Your task to perform on an android device: turn off translation in the chrome app Image 0: 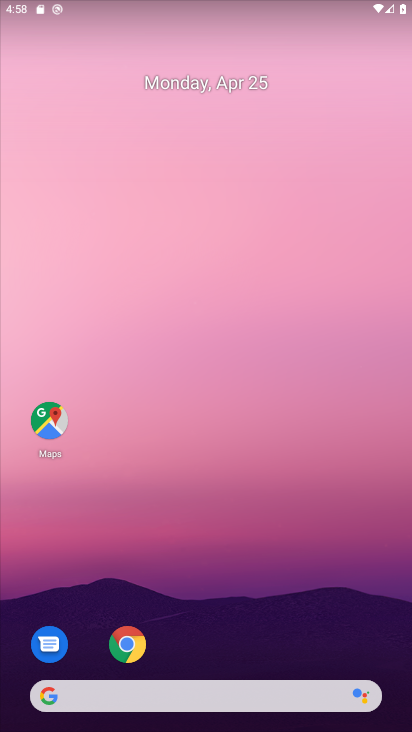
Step 0: click (137, 643)
Your task to perform on an android device: turn off translation in the chrome app Image 1: 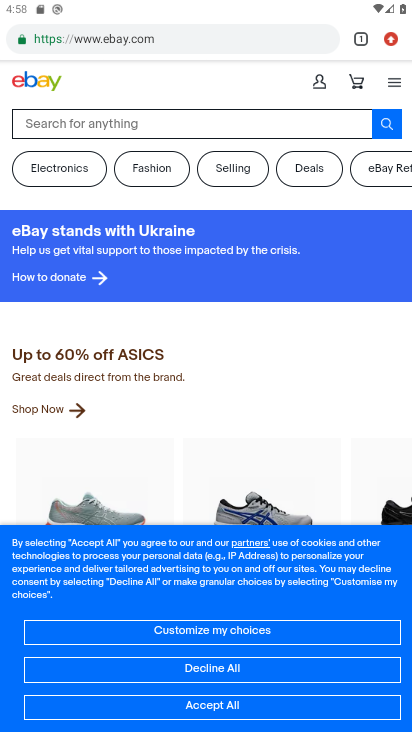
Step 1: click (390, 34)
Your task to perform on an android device: turn off translation in the chrome app Image 2: 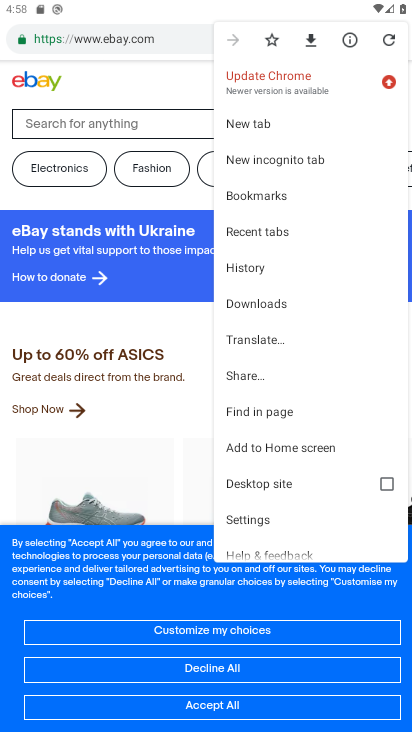
Step 2: click (258, 513)
Your task to perform on an android device: turn off translation in the chrome app Image 3: 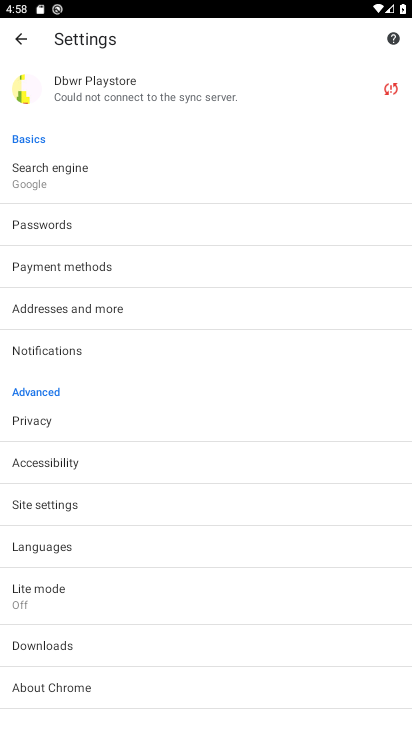
Step 3: click (63, 547)
Your task to perform on an android device: turn off translation in the chrome app Image 4: 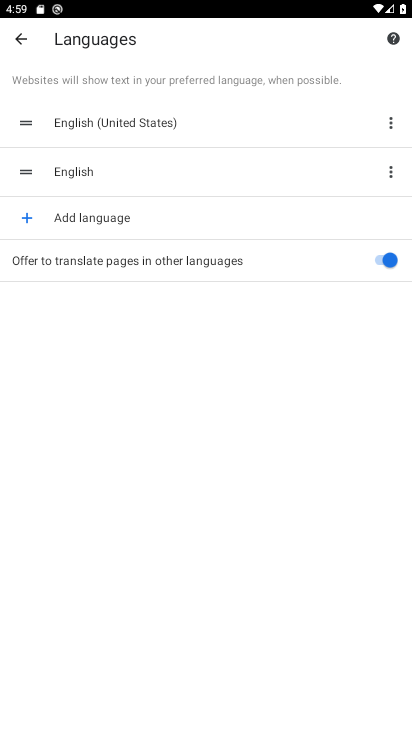
Step 4: click (385, 259)
Your task to perform on an android device: turn off translation in the chrome app Image 5: 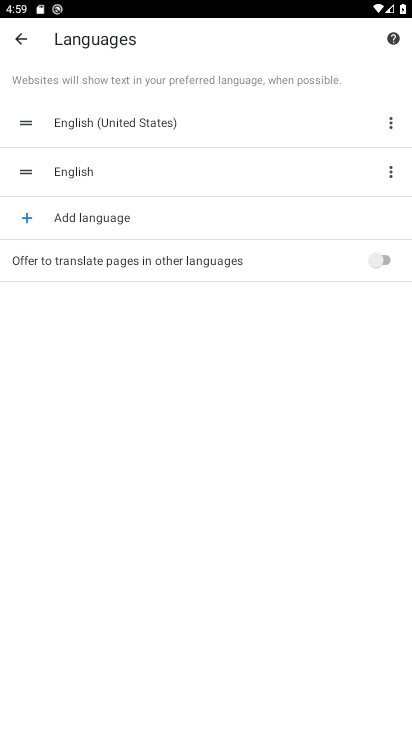
Step 5: task complete